Your task to perform on an android device: toggle priority inbox in the gmail app Image 0: 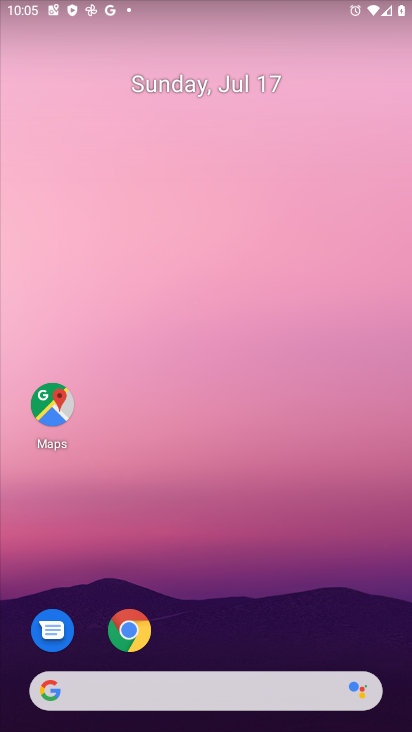
Step 0: drag from (220, 532) to (227, 102)
Your task to perform on an android device: toggle priority inbox in the gmail app Image 1: 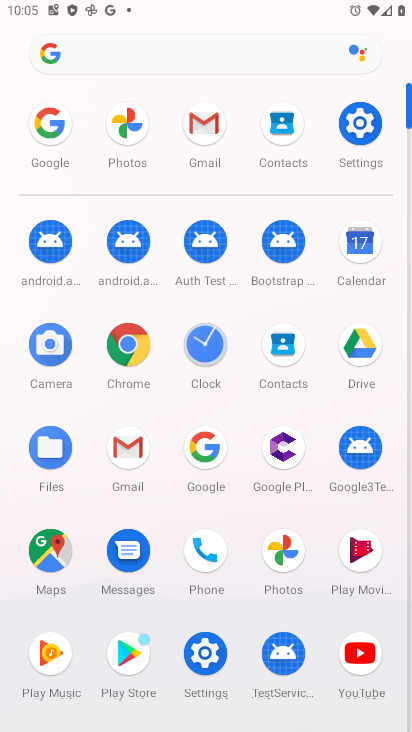
Step 1: click (209, 141)
Your task to perform on an android device: toggle priority inbox in the gmail app Image 2: 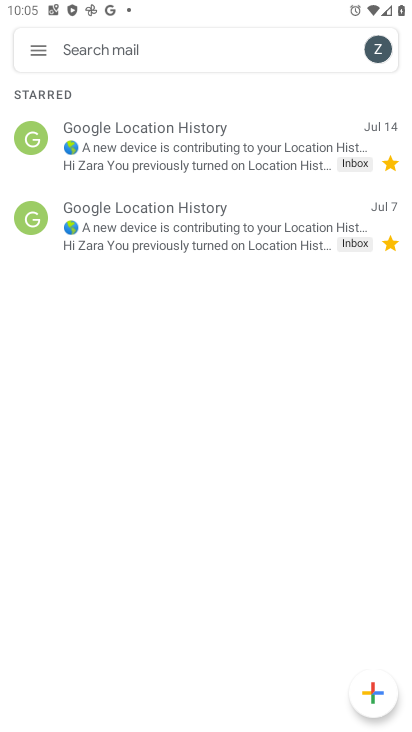
Step 2: click (41, 59)
Your task to perform on an android device: toggle priority inbox in the gmail app Image 3: 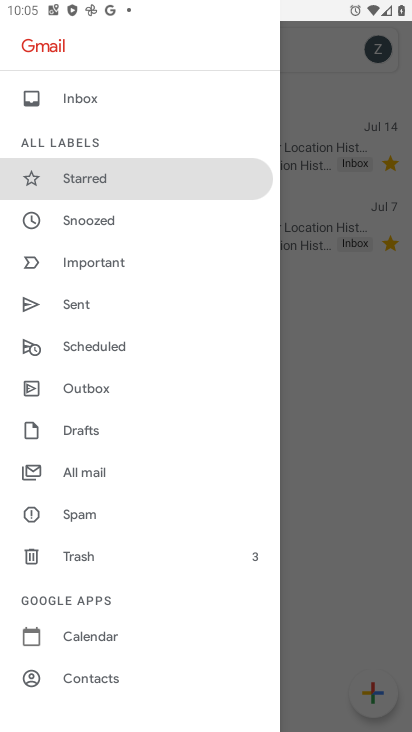
Step 3: drag from (107, 663) to (102, 546)
Your task to perform on an android device: toggle priority inbox in the gmail app Image 4: 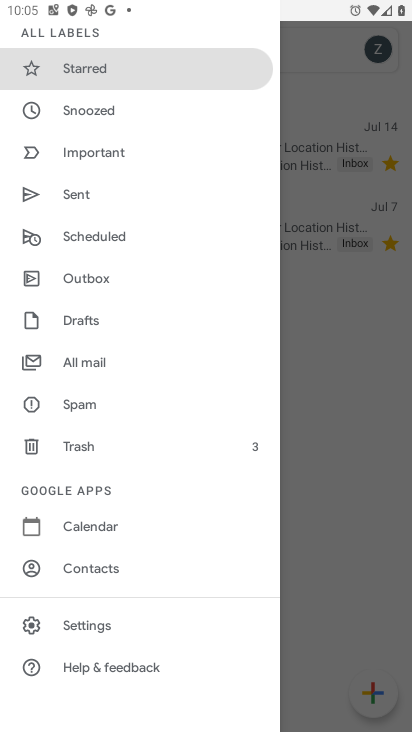
Step 4: click (59, 621)
Your task to perform on an android device: toggle priority inbox in the gmail app Image 5: 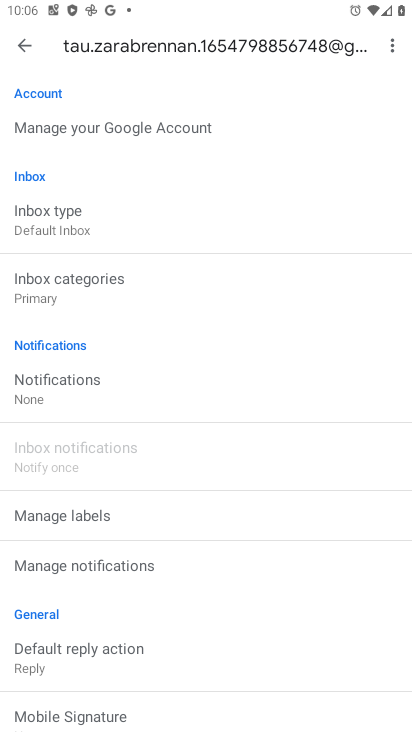
Step 5: click (71, 226)
Your task to perform on an android device: toggle priority inbox in the gmail app Image 6: 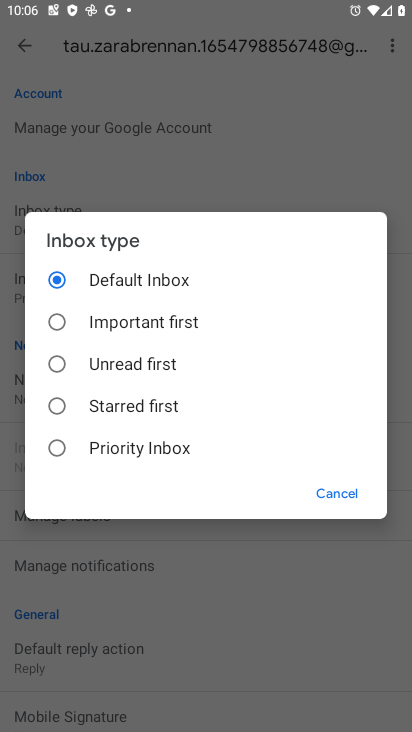
Step 6: click (62, 453)
Your task to perform on an android device: toggle priority inbox in the gmail app Image 7: 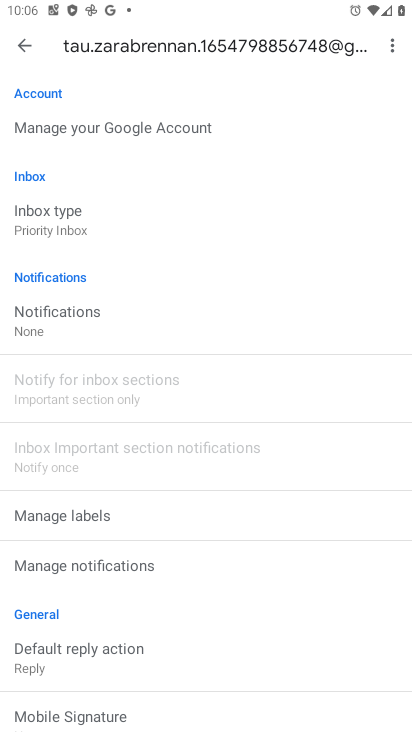
Step 7: task complete